Your task to perform on an android device: all mails in gmail Image 0: 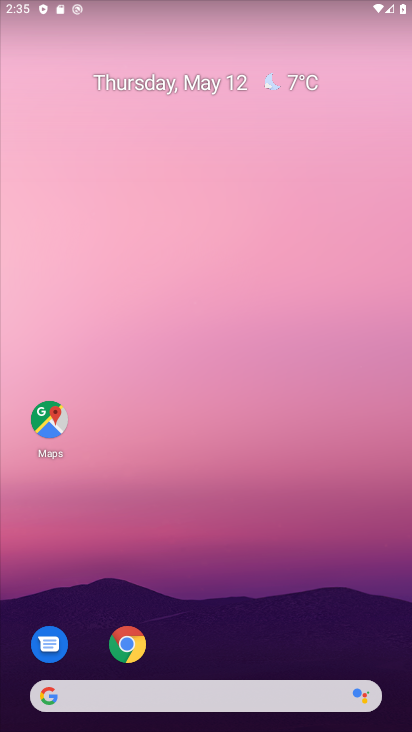
Step 0: drag from (203, 665) to (314, 106)
Your task to perform on an android device: all mails in gmail Image 1: 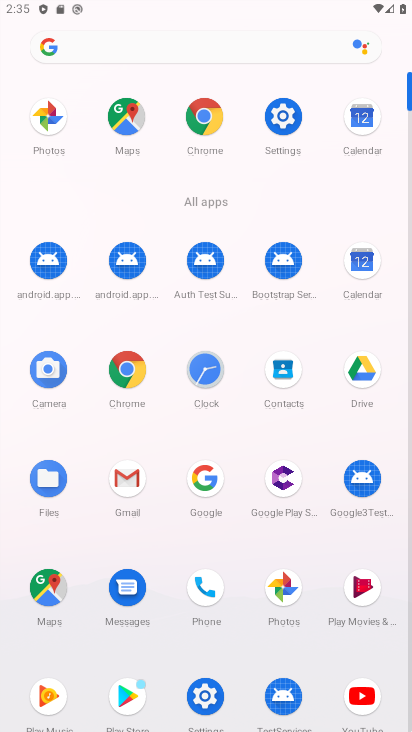
Step 1: click (142, 494)
Your task to perform on an android device: all mails in gmail Image 2: 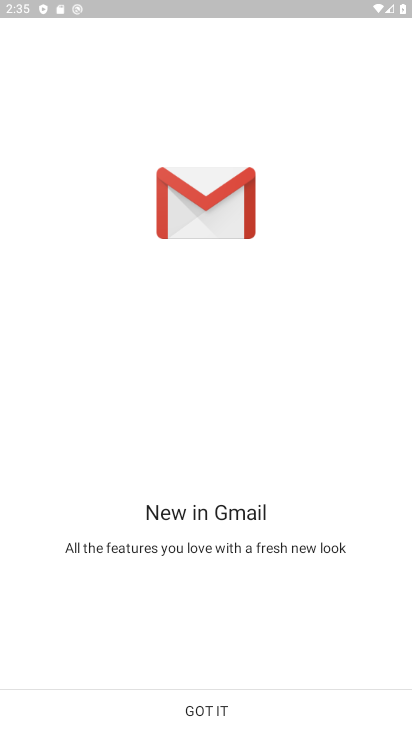
Step 2: click (228, 709)
Your task to perform on an android device: all mails in gmail Image 3: 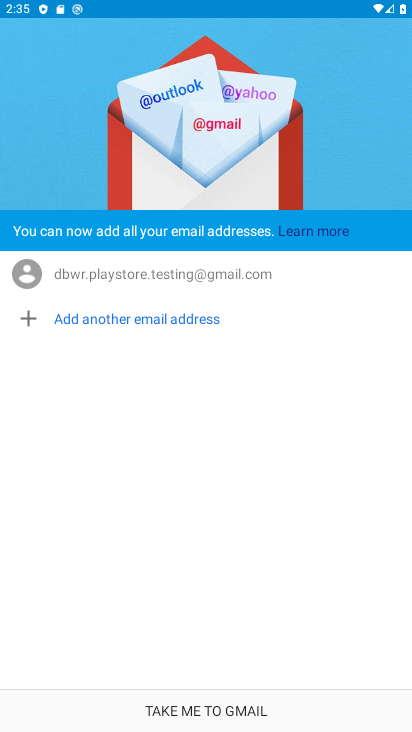
Step 3: click (260, 716)
Your task to perform on an android device: all mails in gmail Image 4: 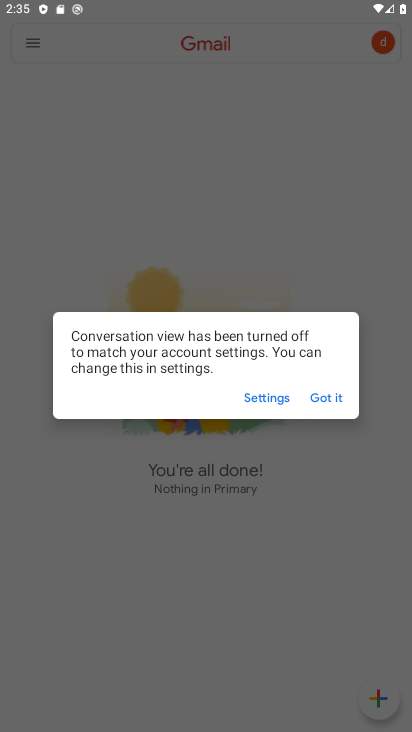
Step 4: click (352, 401)
Your task to perform on an android device: all mails in gmail Image 5: 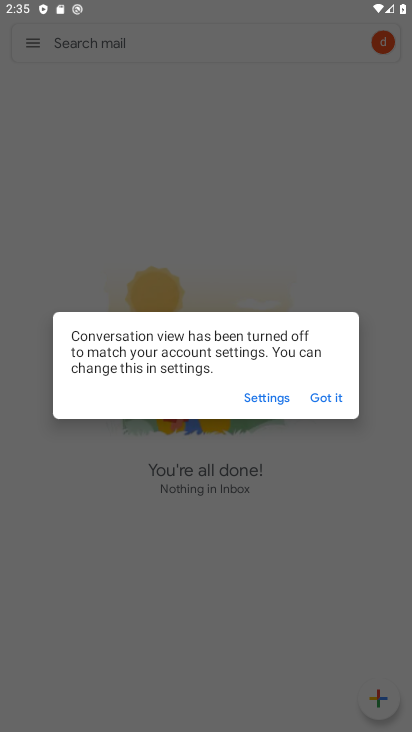
Step 5: click (334, 401)
Your task to perform on an android device: all mails in gmail Image 6: 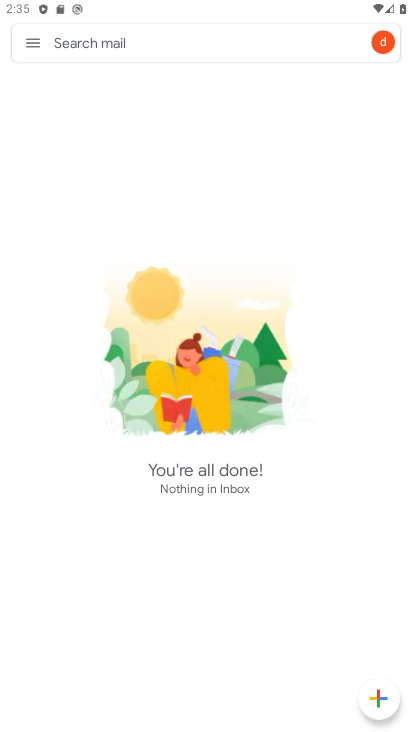
Step 6: click (36, 41)
Your task to perform on an android device: all mails in gmail Image 7: 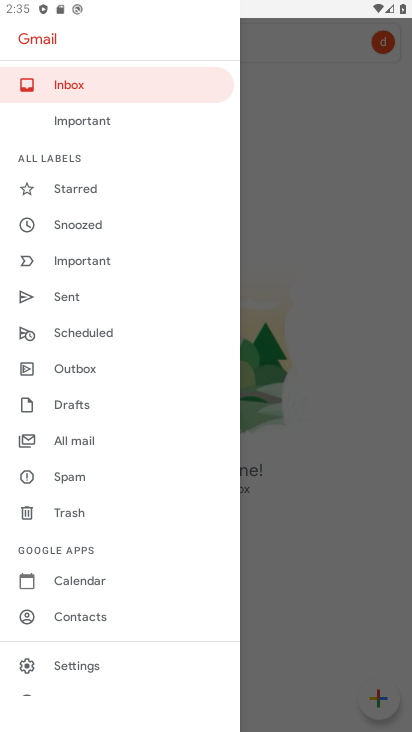
Step 7: click (100, 444)
Your task to perform on an android device: all mails in gmail Image 8: 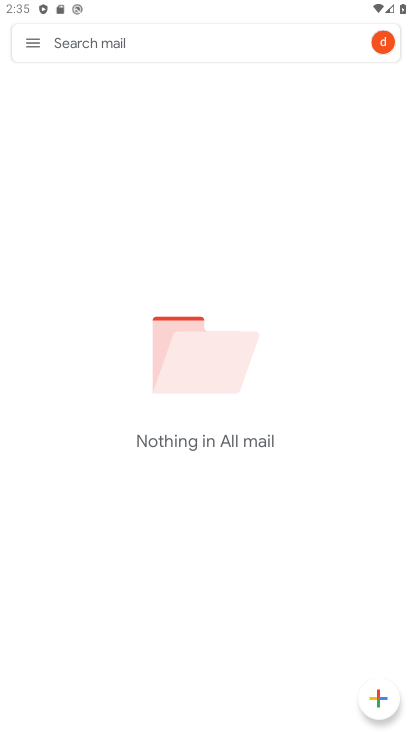
Step 8: task complete